Your task to perform on an android device: turn off priority inbox in the gmail app Image 0: 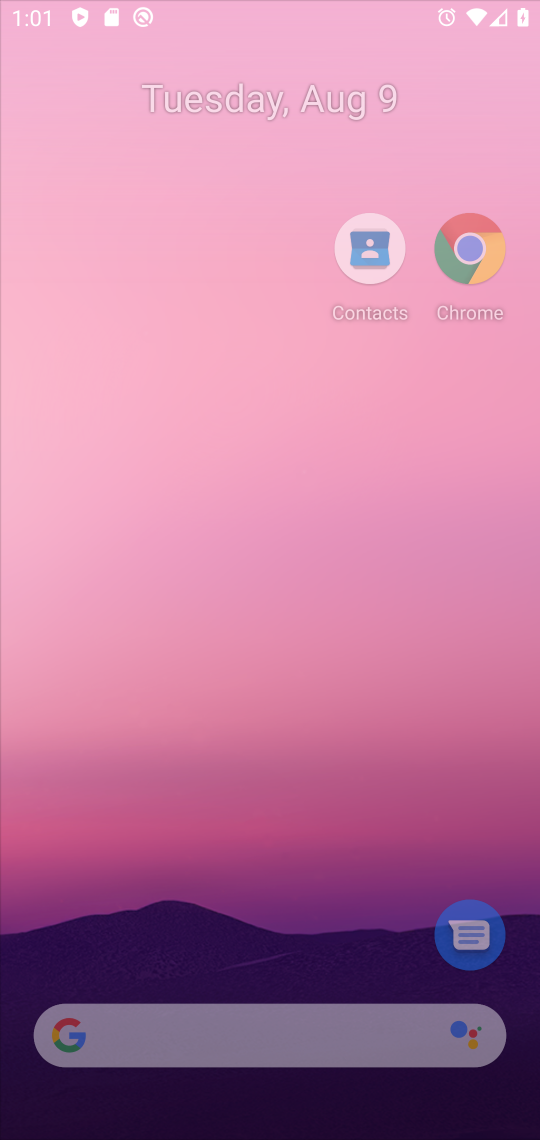
Step 0: click (273, 247)
Your task to perform on an android device: turn off priority inbox in the gmail app Image 1: 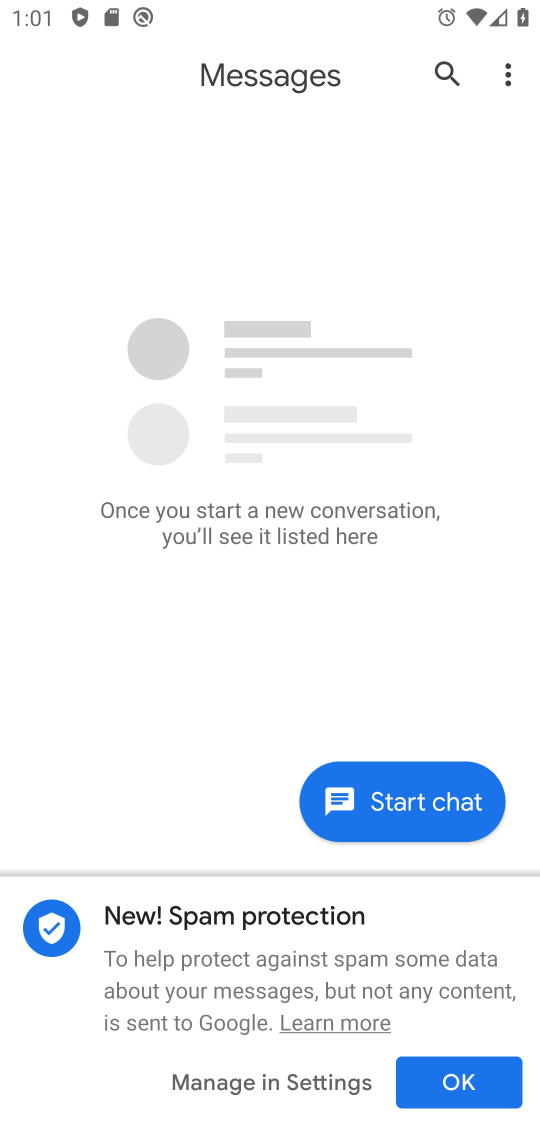
Step 1: press home button
Your task to perform on an android device: turn off priority inbox in the gmail app Image 2: 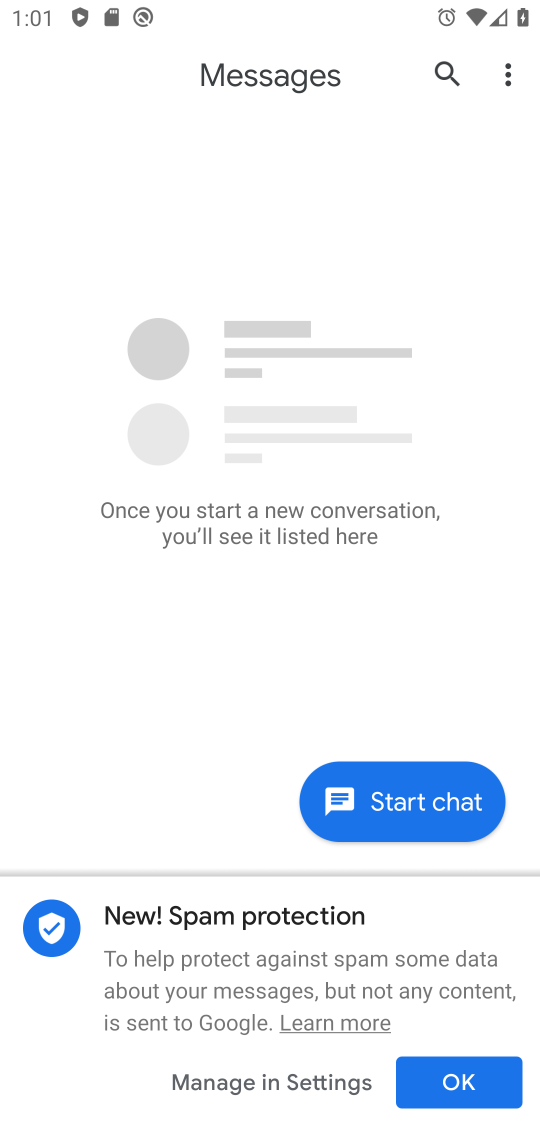
Step 2: press home button
Your task to perform on an android device: turn off priority inbox in the gmail app Image 3: 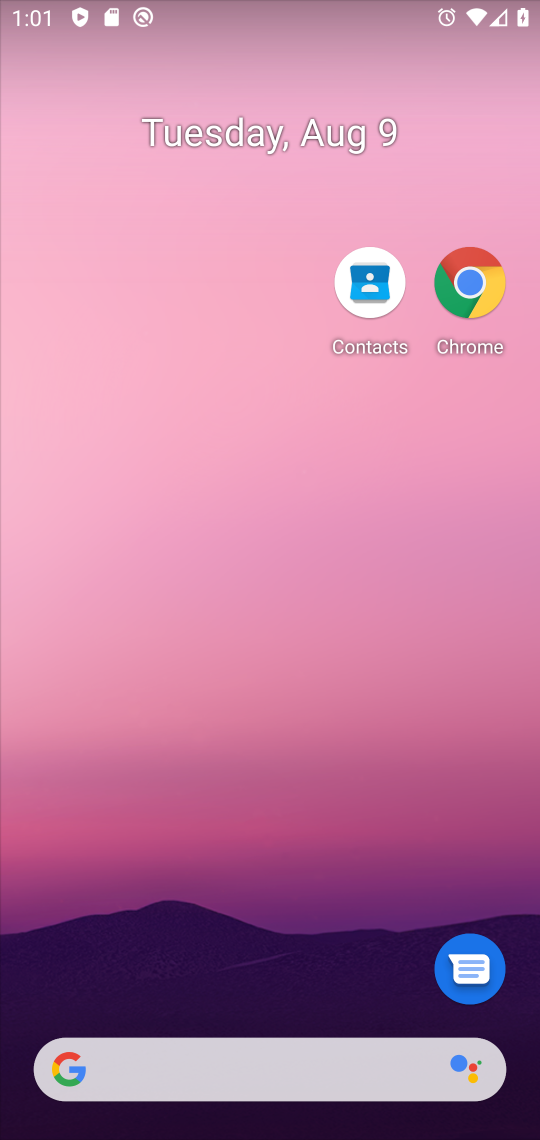
Step 3: drag from (265, 728) to (297, 513)
Your task to perform on an android device: turn off priority inbox in the gmail app Image 4: 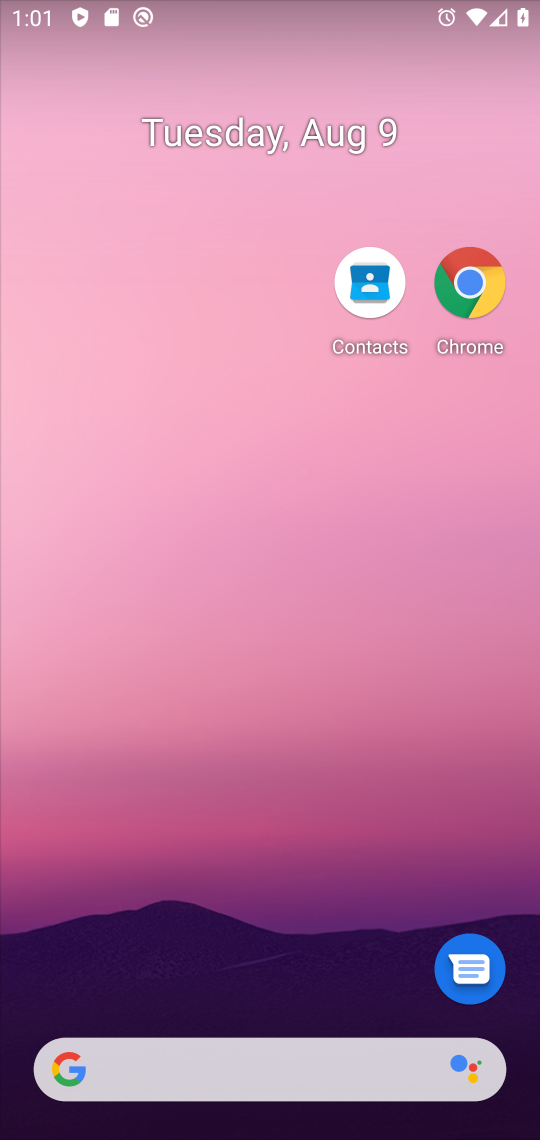
Step 4: drag from (317, 931) to (290, 200)
Your task to perform on an android device: turn off priority inbox in the gmail app Image 5: 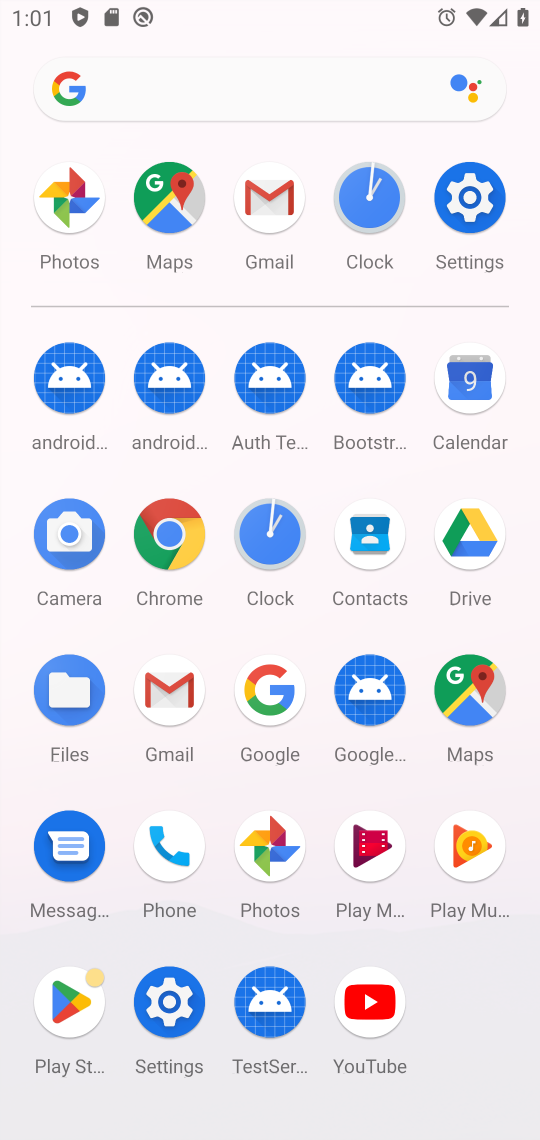
Step 5: click (160, 673)
Your task to perform on an android device: turn off priority inbox in the gmail app Image 6: 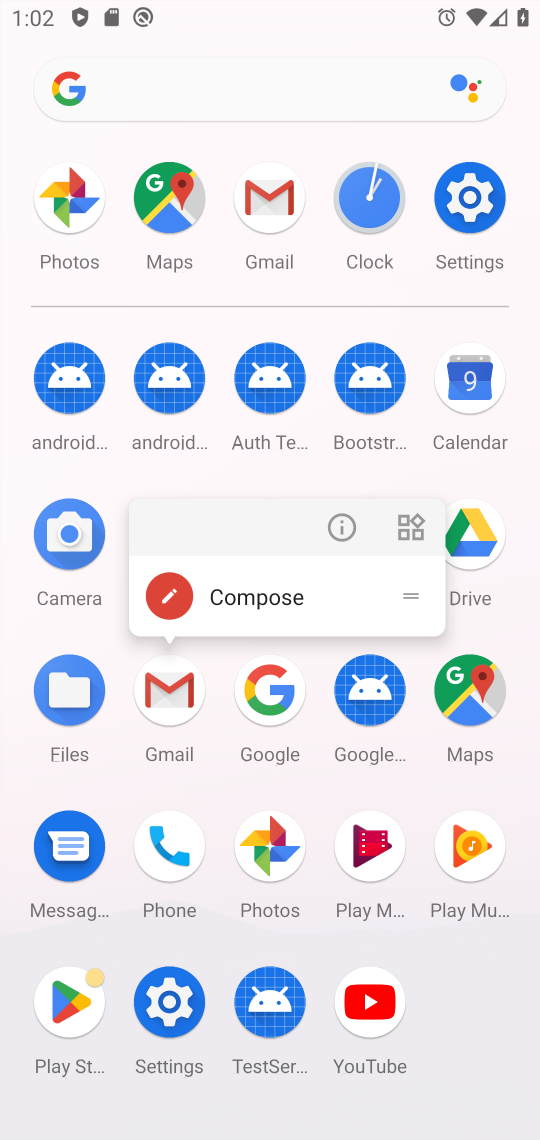
Step 6: click (343, 513)
Your task to perform on an android device: turn off priority inbox in the gmail app Image 7: 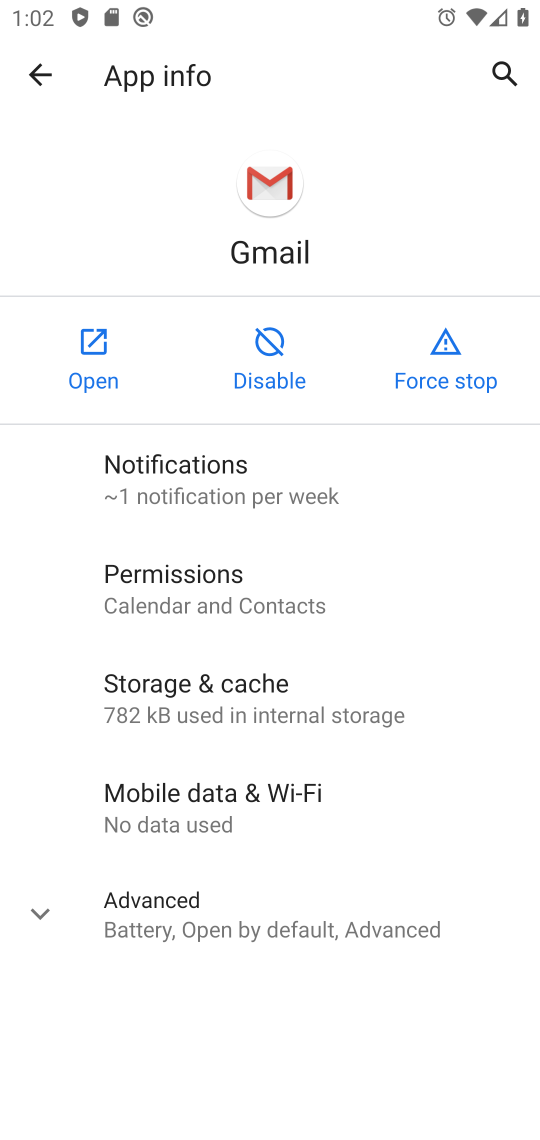
Step 7: click (114, 382)
Your task to perform on an android device: turn off priority inbox in the gmail app Image 8: 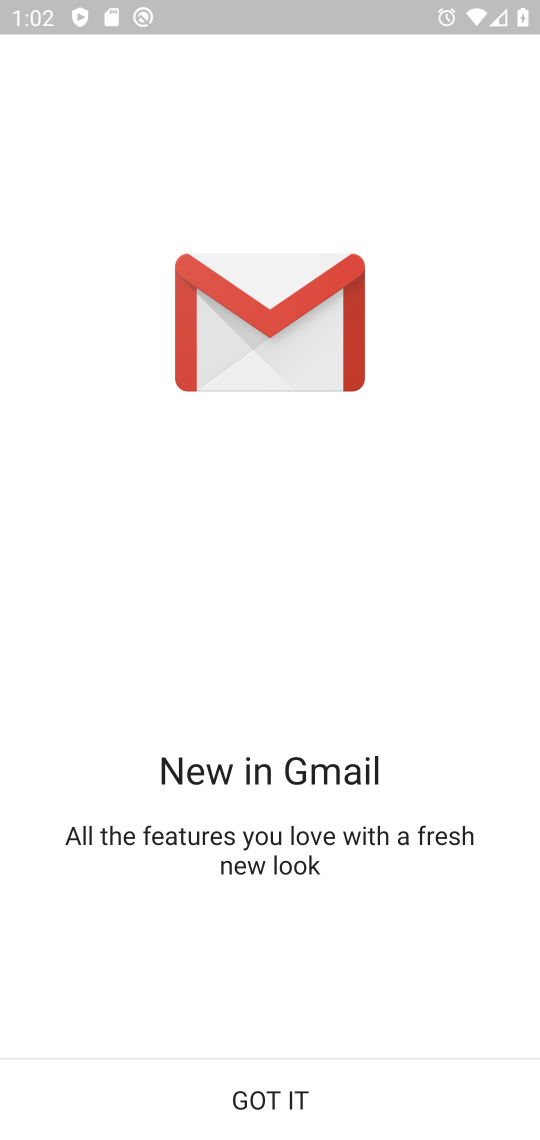
Step 8: click (265, 1100)
Your task to perform on an android device: turn off priority inbox in the gmail app Image 9: 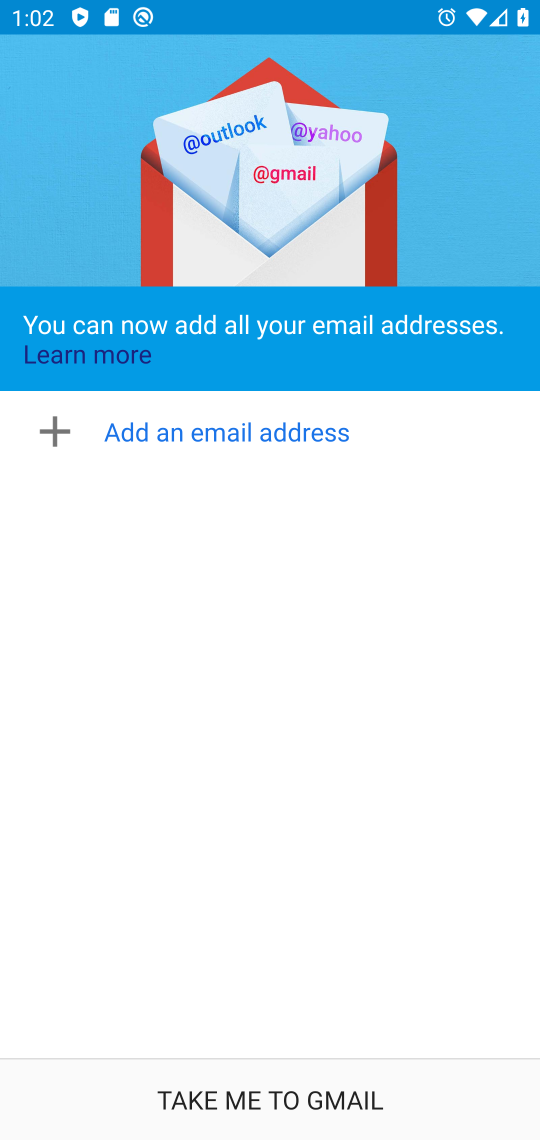
Step 9: click (230, 1085)
Your task to perform on an android device: turn off priority inbox in the gmail app Image 10: 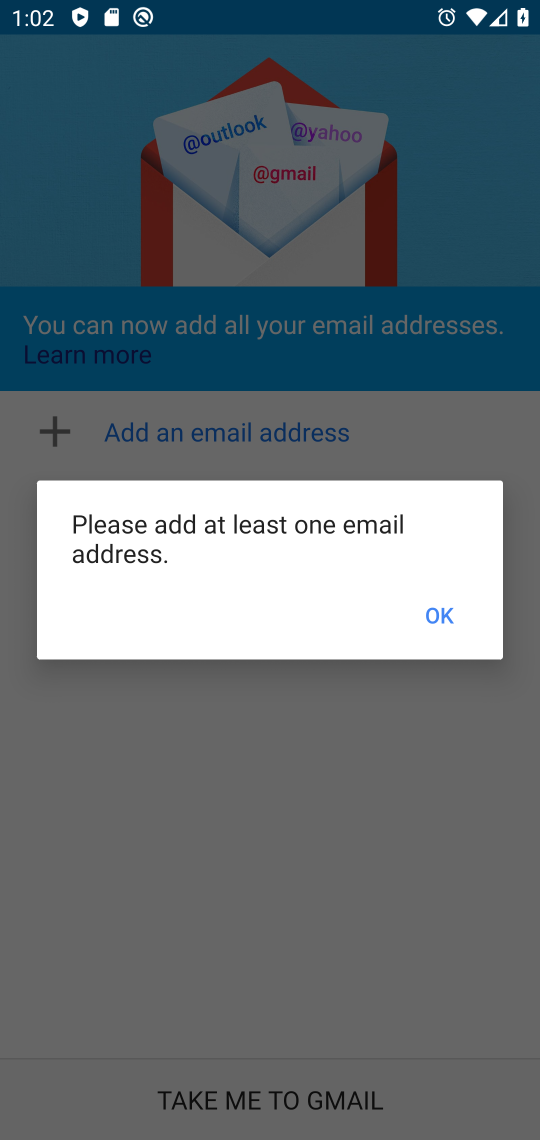
Step 10: click (438, 610)
Your task to perform on an android device: turn off priority inbox in the gmail app Image 11: 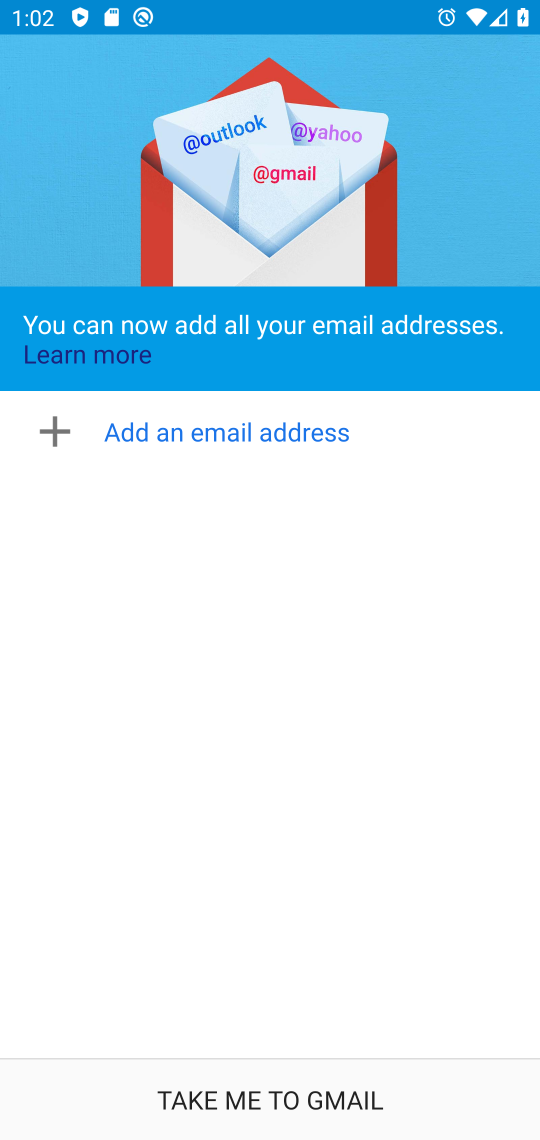
Step 11: drag from (287, 1030) to (477, 565)
Your task to perform on an android device: turn off priority inbox in the gmail app Image 12: 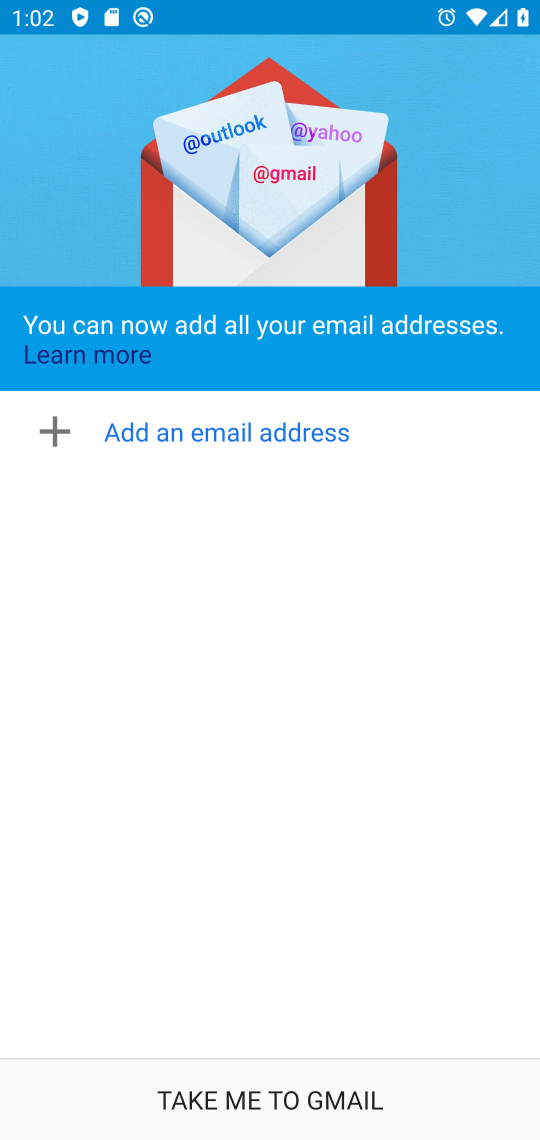
Step 12: drag from (301, 949) to (210, 234)
Your task to perform on an android device: turn off priority inbox in the gmail app Image 13: 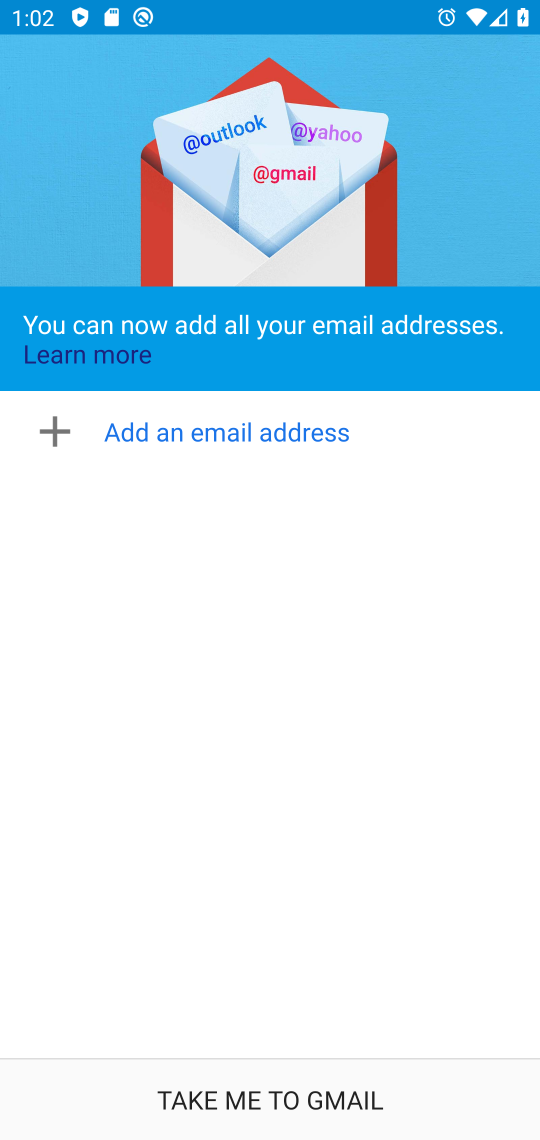
Step 13: click (242, 477)
Your task to perform on an android device: turn off priority inbox in the gmail app Image 14: 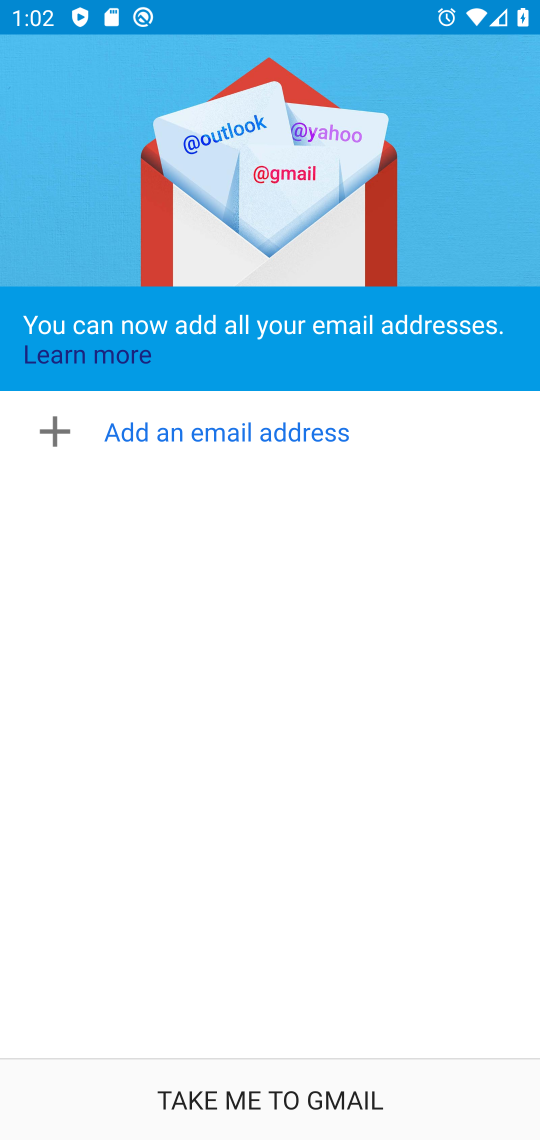
Step 14: drag from (279, 775) to (273, 601)
Your task to perform on an android device: turn off priority inbox in the gmail app Image 15: 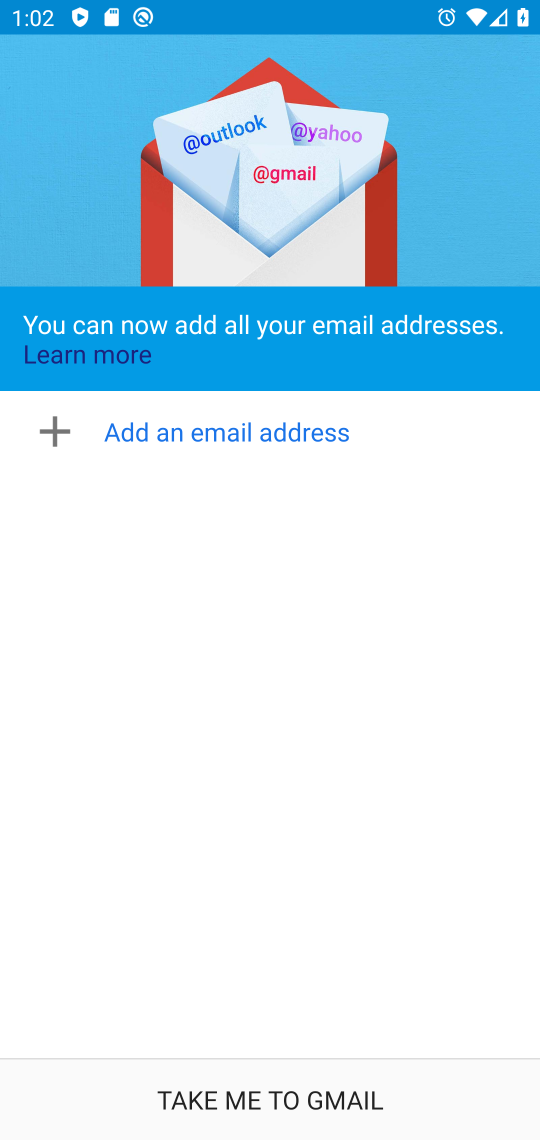
Step 15: click (404, 350)
Your task to perform on an android device: turn off priority inbox in the gmail app Image 16: 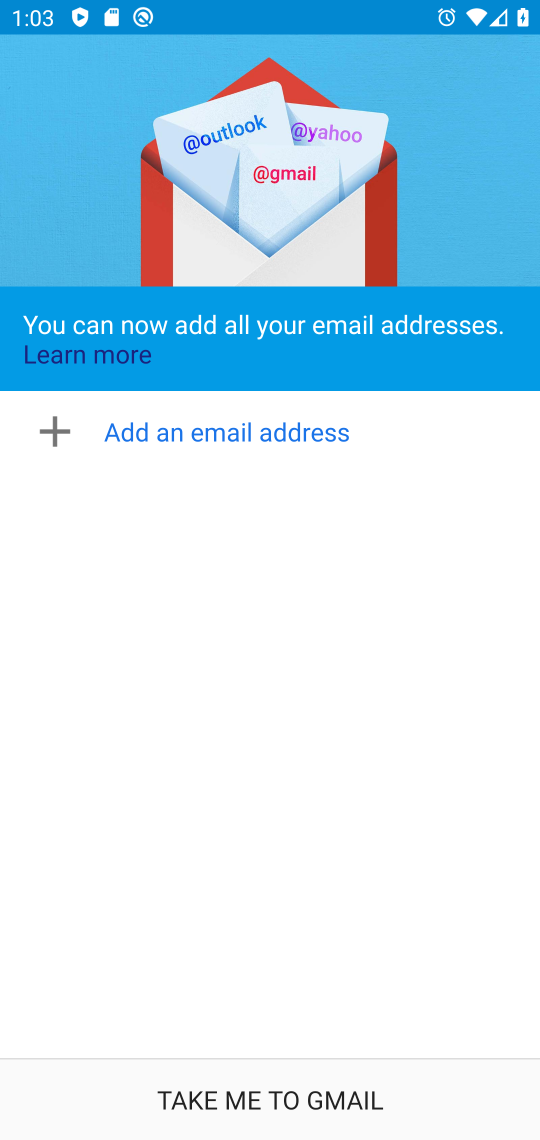
Step 16: click (319, 659)
Your task to perform on an android device: turn off priority inbox in the gmail app Image 17: 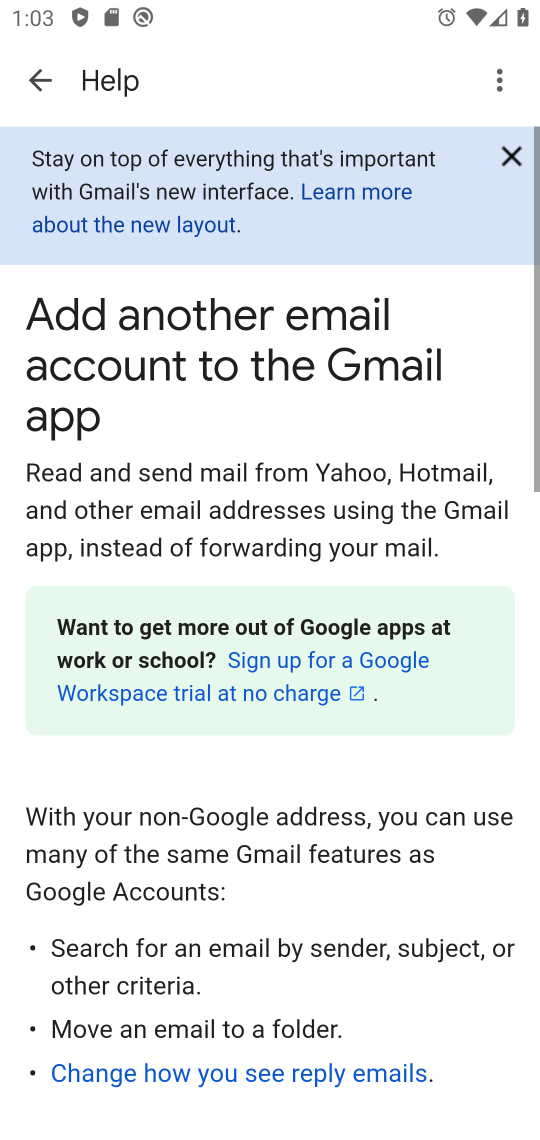
Step 17: press home button
Your task to perform on an android device: turn off priority inbox in the gmail app Image 18: 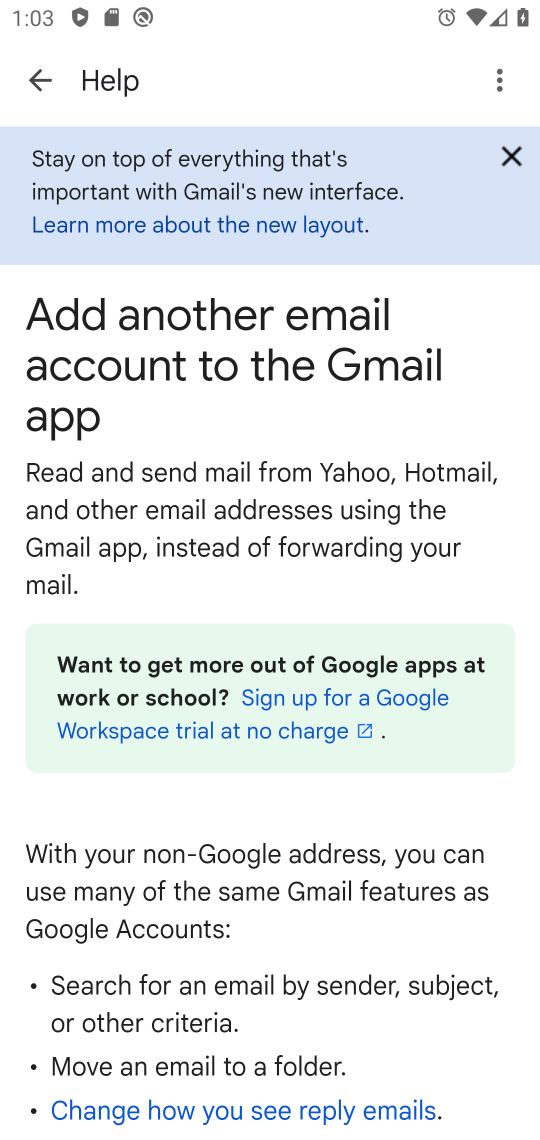
Step 18: press home button
Your task to perform on an android device: turn off priority inbox in the gmail app Image 19: 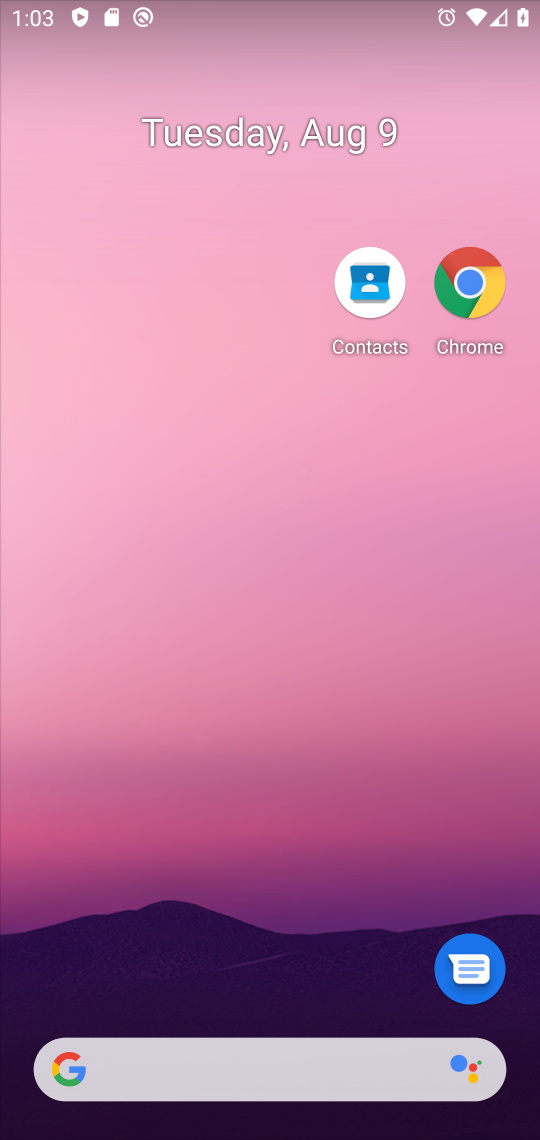
Step 19: press home button
Your task to perform on an android device: turn off priority inbox in the gmail app Image 20: 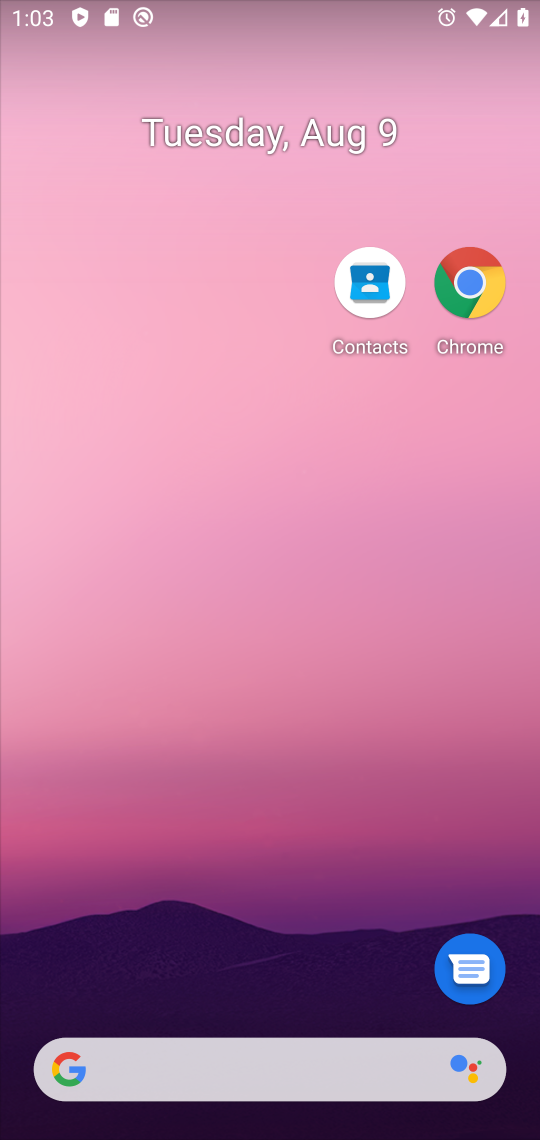
Step 20: press home button
Your task to perform on an android device: turn off priority inbox in the gmail app Image 21: 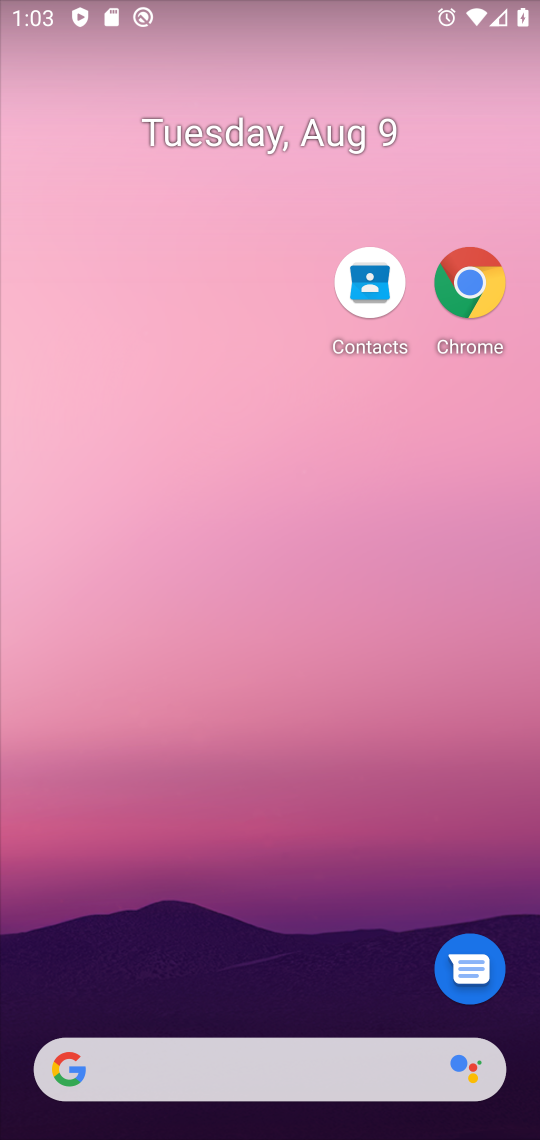
Step 21: drag from (247, 786) to (284, 35)
Your task to perform on an android device: turn off priority inbox in the gmail app Image 22: 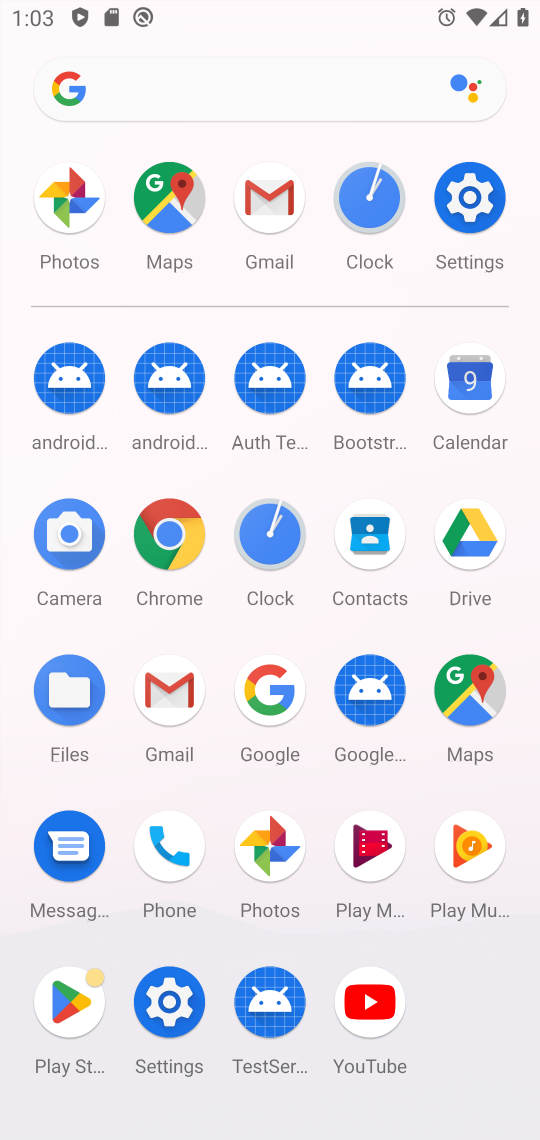
Step 22: click (166, 684)
Your task to perform on an android device: turn off priority inbox in the gmail app Image 23: 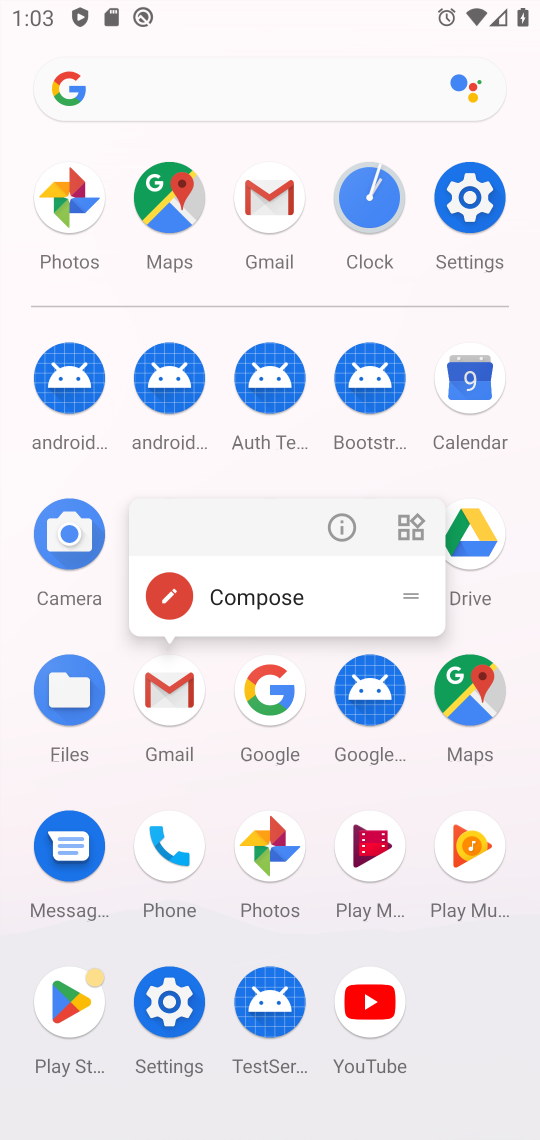
Step 23: click (329, 528)
Your task to perform on an android device: turn off priority inbox in the gmail app Image 24: 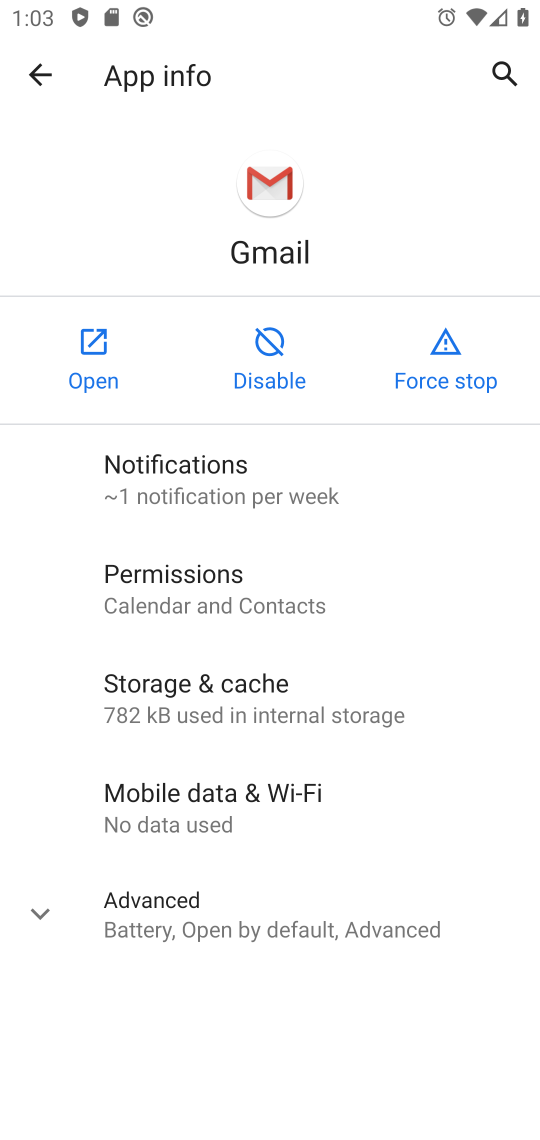
Step 24: click (75, 349)
Your task to perform on an android device: turn off priority inbox in the gmail app Image 25: 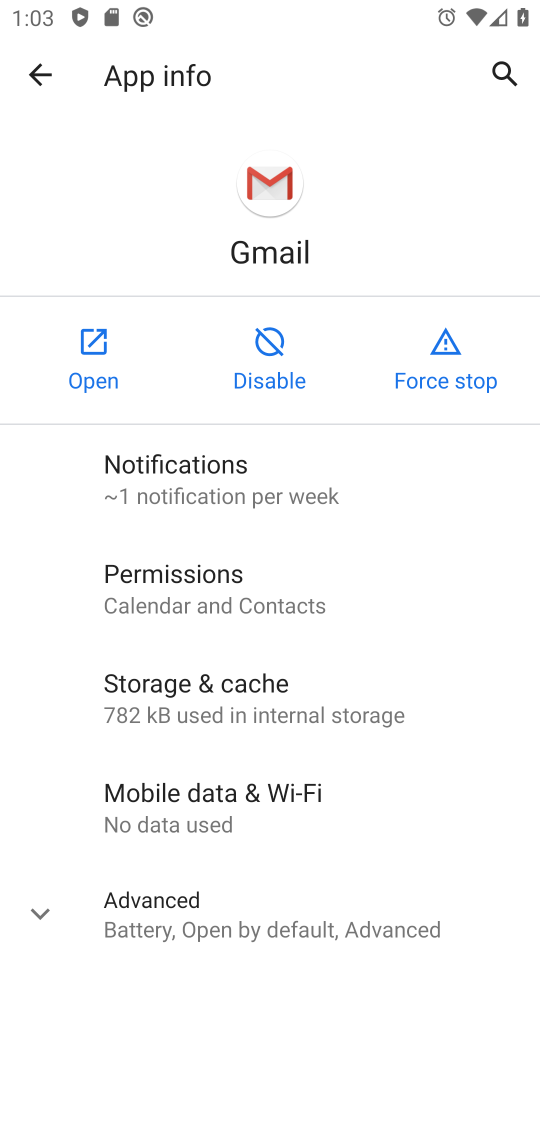
Step 25: click (75, 349)
Your task to perform on an android device: turn off priority inbox in the gmail app Image 26: 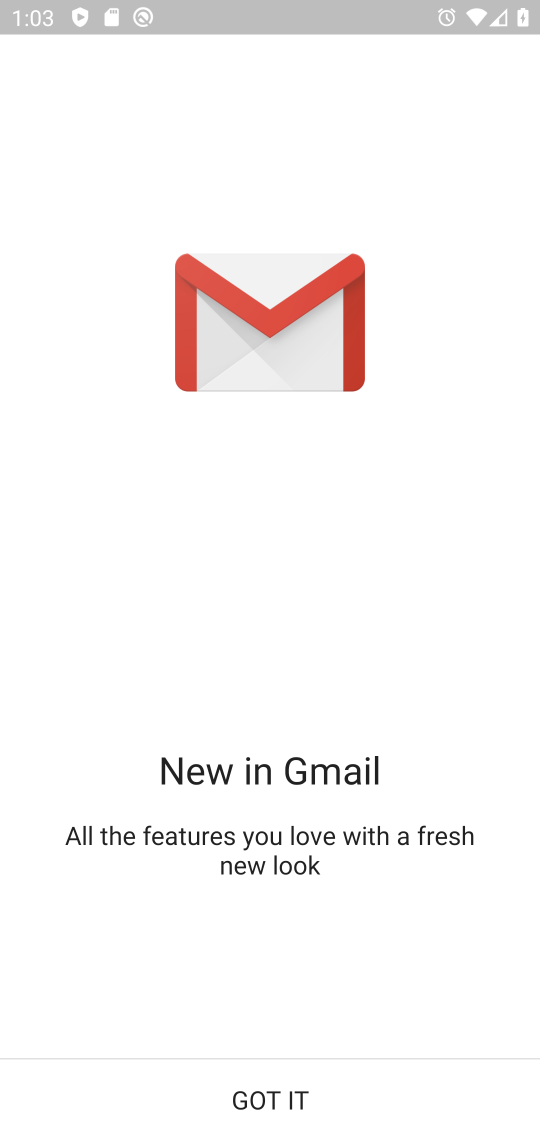
Step 26: click (273, 1084)
Your task to perform on an android device: turn off priority inbox in the gmail app Image 27: 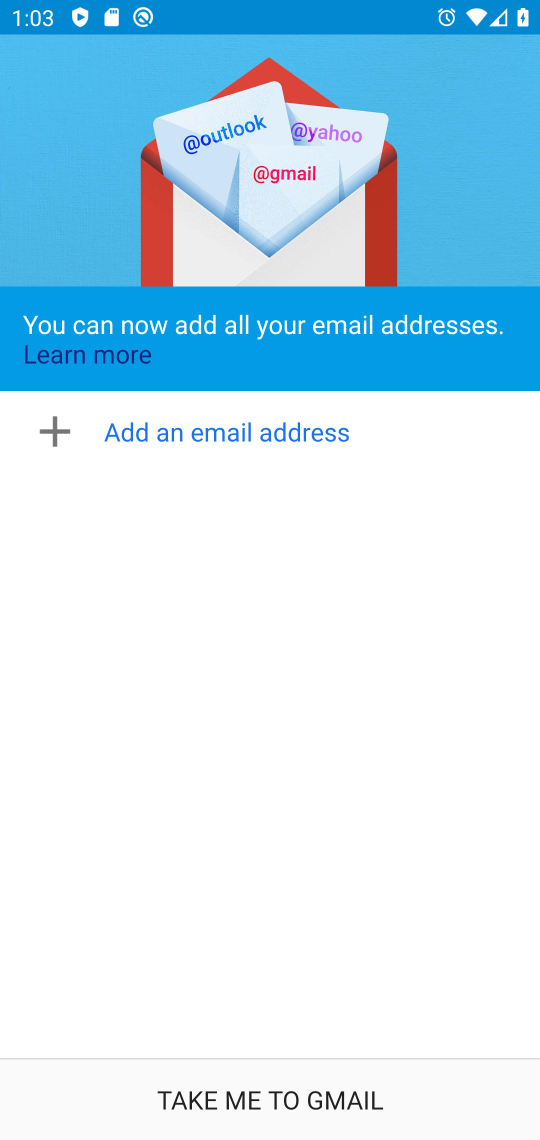
Step 27: task complete